Your task to perform on an android device: toggle location history Image 0: 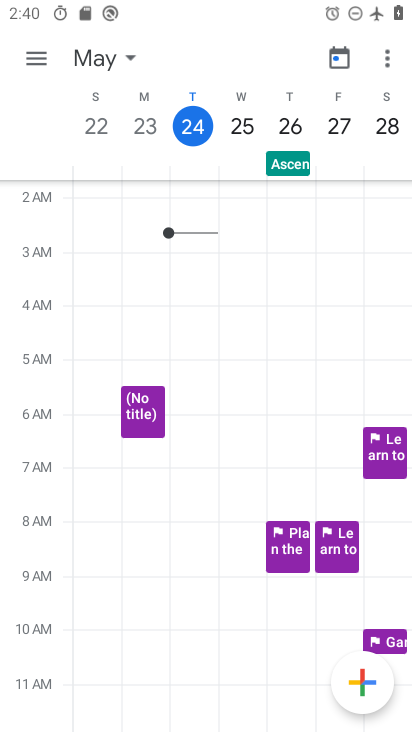
Step 0: press home button
Your task to perform on an android device: toggle location history Image 1: 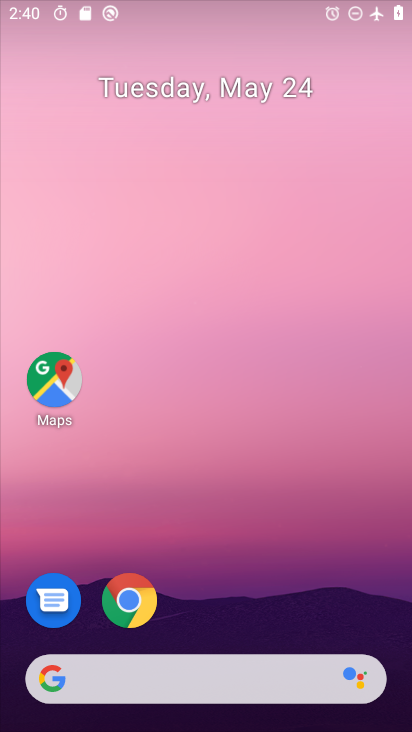
Step 1: drag from (265, 618) to (172, 252)
Your task to perform on an android device: toggle location history Image 2: 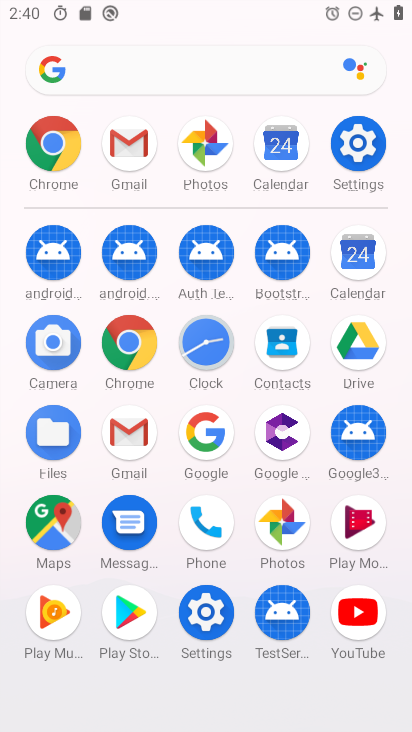
Step 2: click (363, 154)
Your task to perform on an android device: toggle location history Image 3: 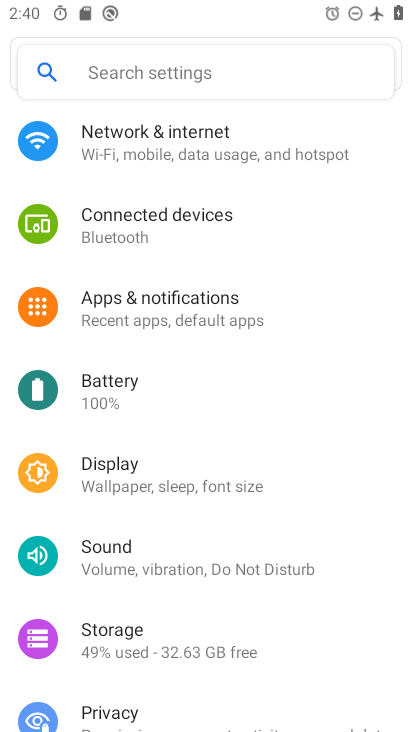
Step 3: drag from (216, 574) to (267, 208)
Your task to perform on an android device: toggle location history Image 4: 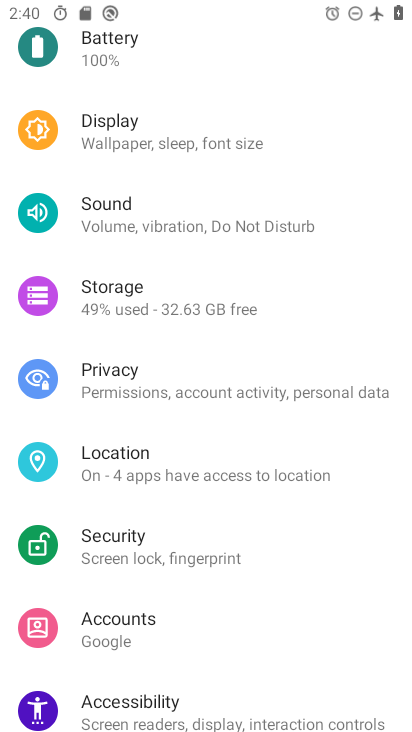
Step 4: click (191, 480)
Your task to perform on an android device: toggle location history Image 5: 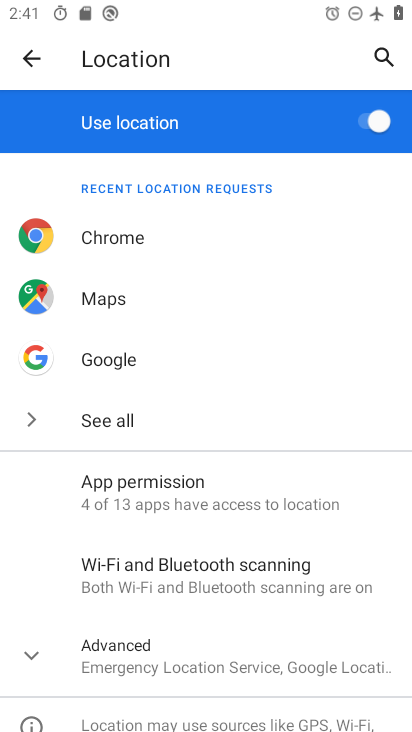
Step 5: drag from (256, 560) to (319, 168)
Your task to perform on an android device: toggle location history Image 6: 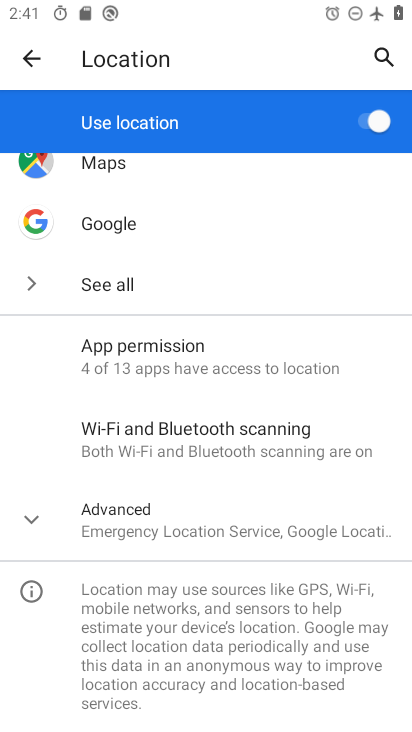
Step 6: click (219, 521)
Your task to perform on an android device: toggle location history Image 7: 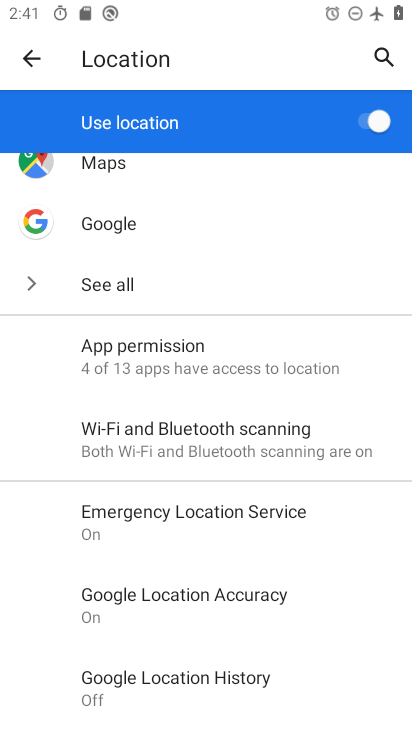
Step 7: click (236, 687)
Your task to perform on an android device: toggle location history Image 8: 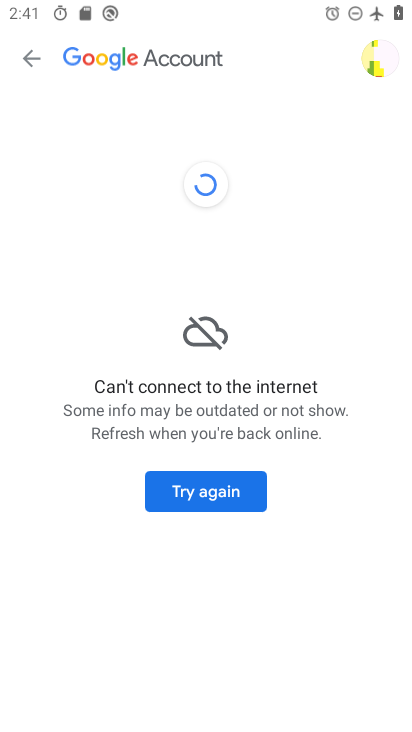
Step 8: task complete